Your task to perform on an android device: Open the calendar app, open the side menu, and click the "Day" option Image 0: 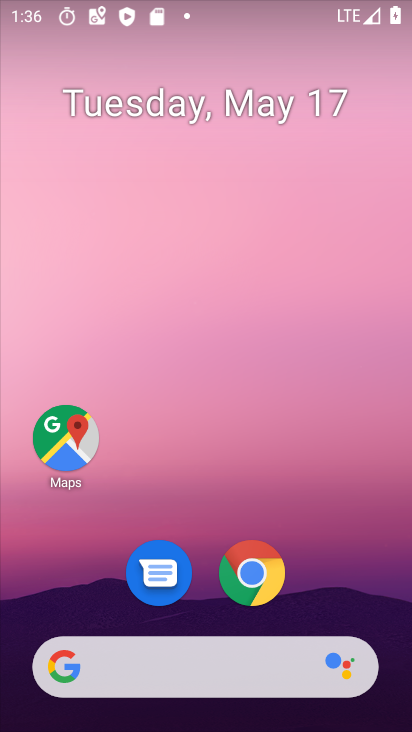
Step 0: drag from (135, 725) to (150, 72)
Your task to perform on an android device: Open the calendar app, open the side menu, and click the "Day" option Image 1: 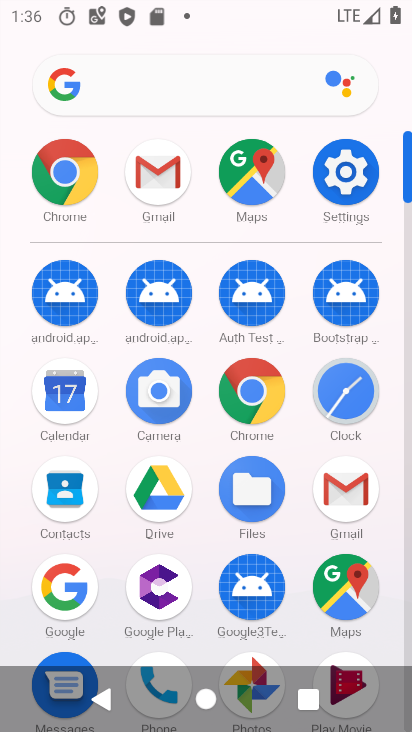
Step 1: click (60, 391)
Your task to perform on an android device: Open the calendar app, open the side menu, and click the "Day" option Image 2: 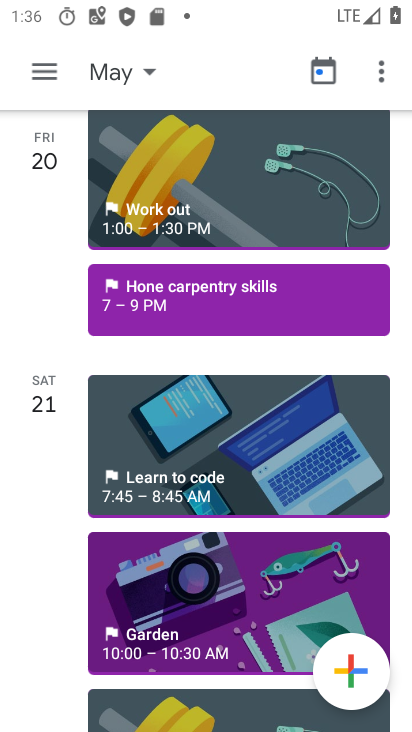
Step 2: click (45, 65)
Your task to perform on an android device: Open the calendar app, open the side menu, and click the "Day" option Image 3: 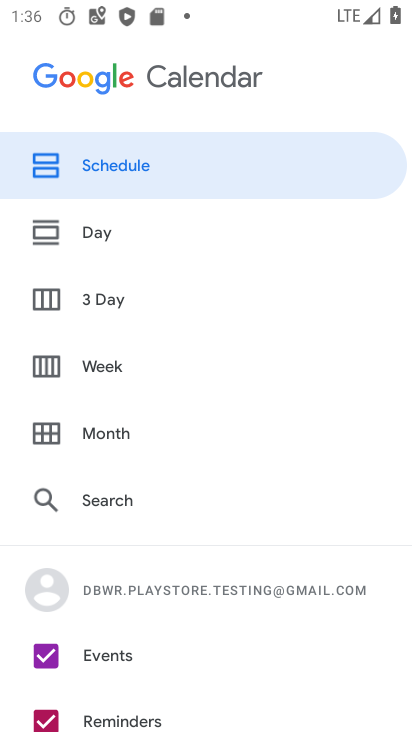
Step 3: click (120, 242)
Your task to perform on an android device: Open the calendar app, open the side menu, and click the "Day" option Image 4: 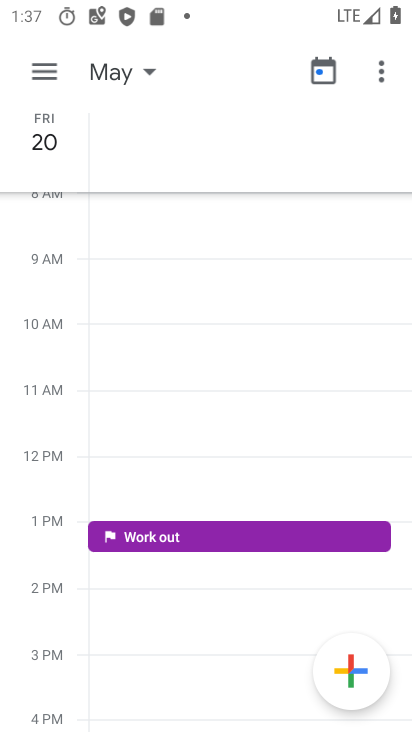
Step 4: task complete